Your task to perform on an android device: change the clock display to show seconds Image 0: 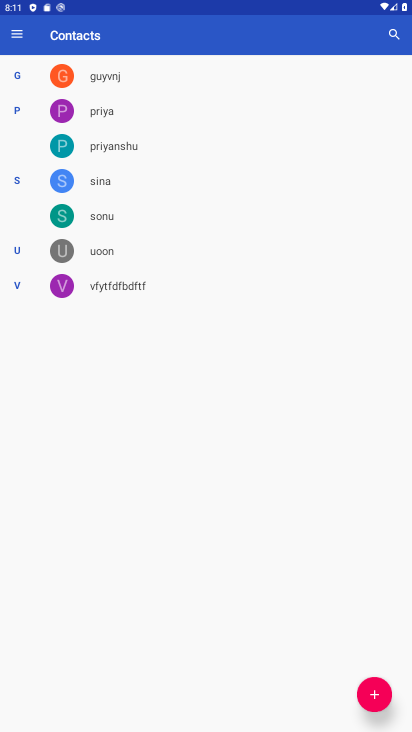
Step 0: press home button
Your task to perform on an android device: change the clock display to show seconds Image 1: 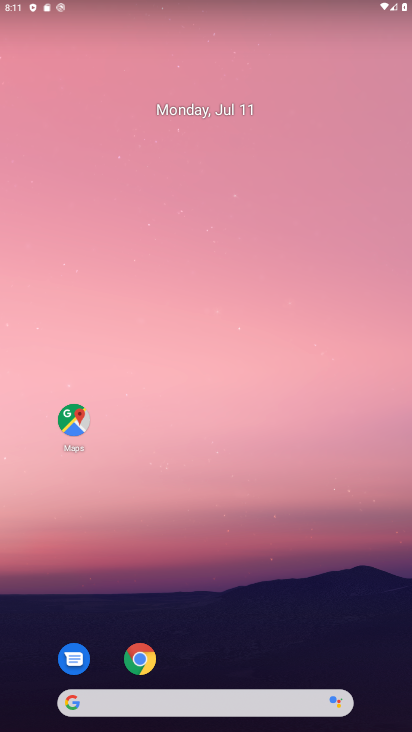
Step 1: drag from (201, 660) to (149, 218)
Your task to perform on an android device: change the clock display to show seconds Image 2: 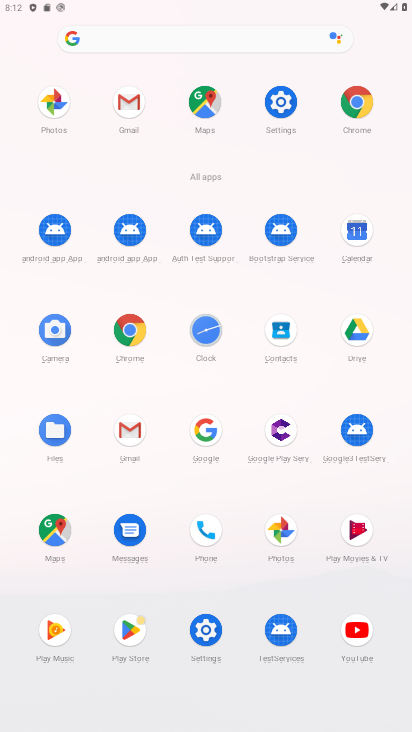
Step 2: click (205, 337)
Your task to perform on an android device: change the clock display to show seconds Image 3: 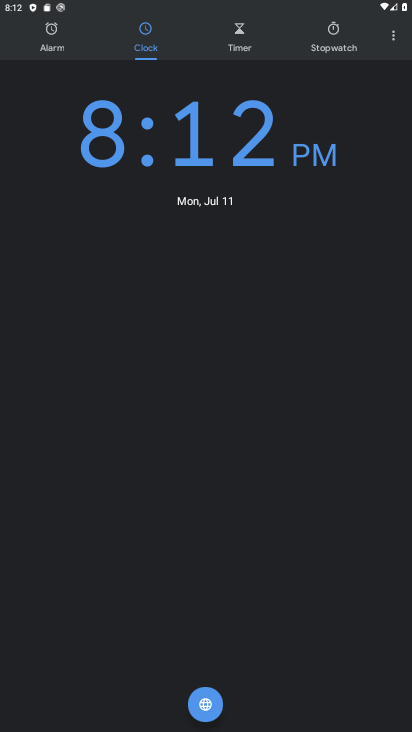
Step 3: click (391, 40)
Your task to perform on an android device: change the clock display to show seconds Image 4: 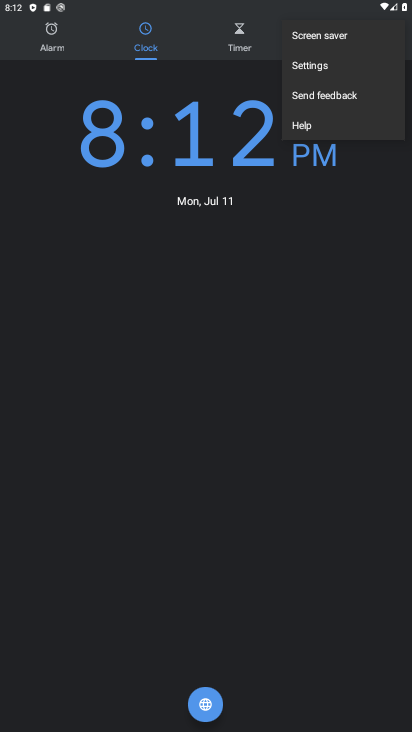
Step 4: click (310, 71)
Your task to perform on an android device: change the clock display to show seconds Image 5: 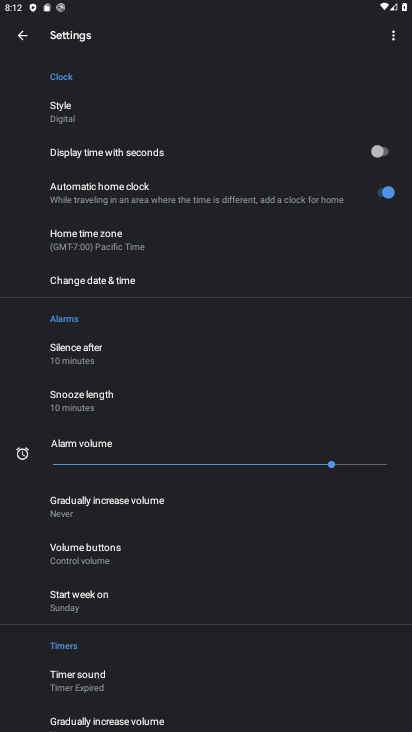
Step 5: click (386, 147)
Your task to perform on an android device: change the clock display to show seconds Image 6: 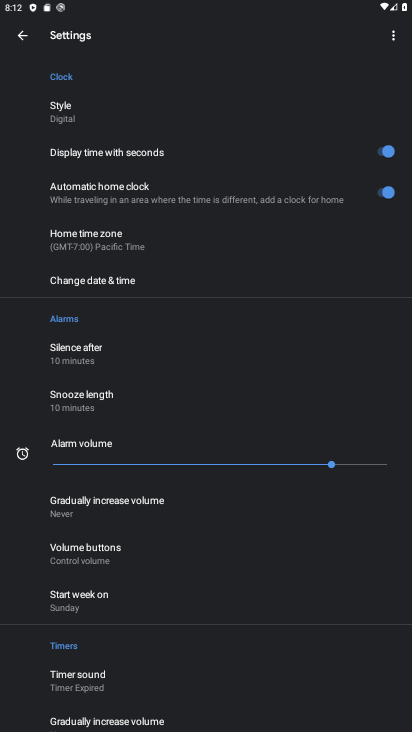
Step 6: task complete